Your task to perform on an android device: When is my next appointment? Image 0: 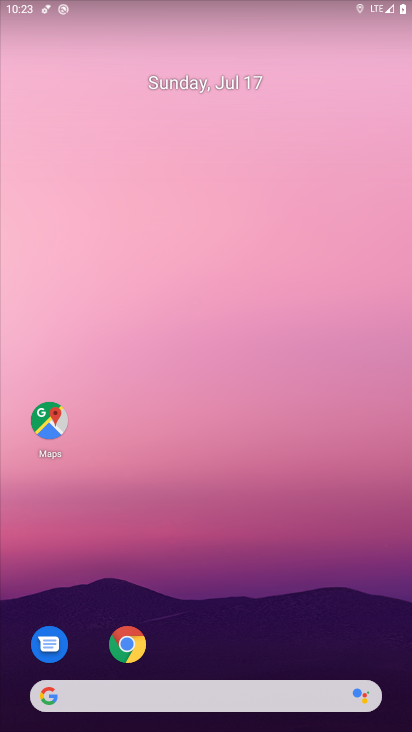
Step 0: press home button
Your task to perform on an android device: When is my next appointment? Image 1: 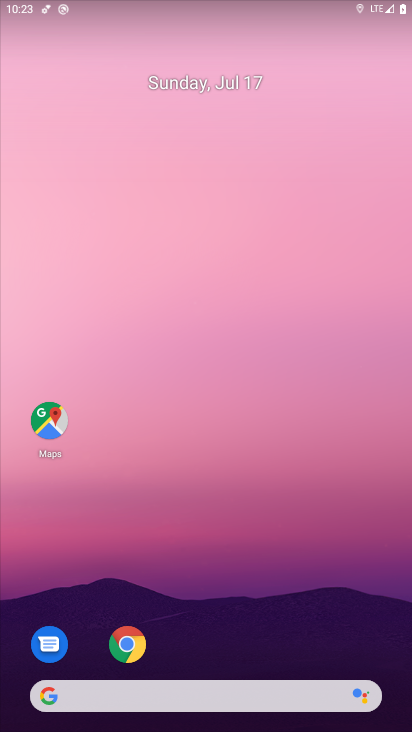
Step 1: drag from (276, 612) to (290, 15)
Your task to perform on an android device: When is my next appointment? Image 2: 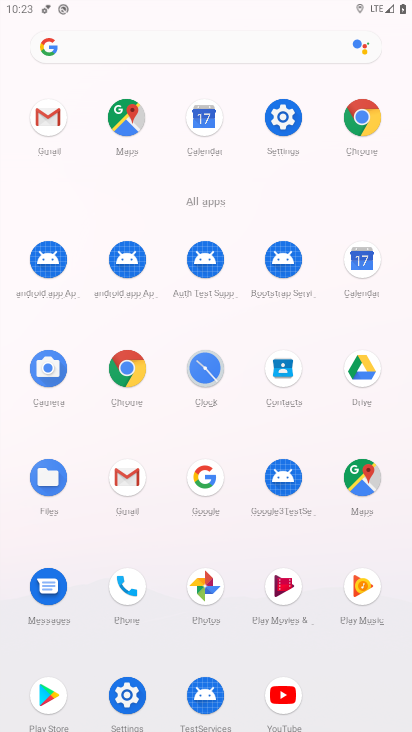
Step 2: click (358, 270)
Your task to perform on an android device: When is my next appointment? Image 3: 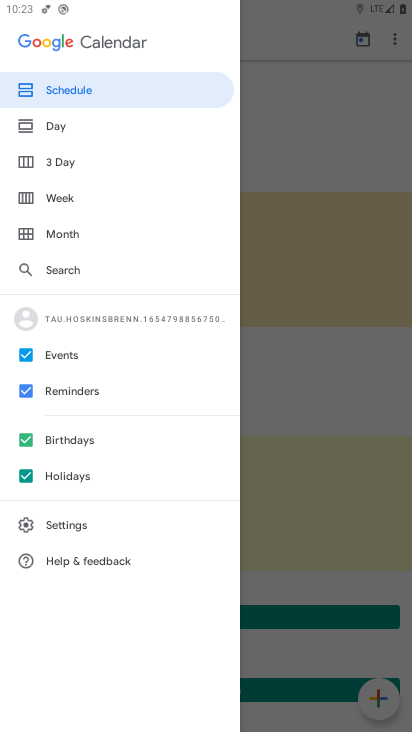
Step 3: click (86, 92)
Your task to perform on an android device: When is my next appointment? Image 4: 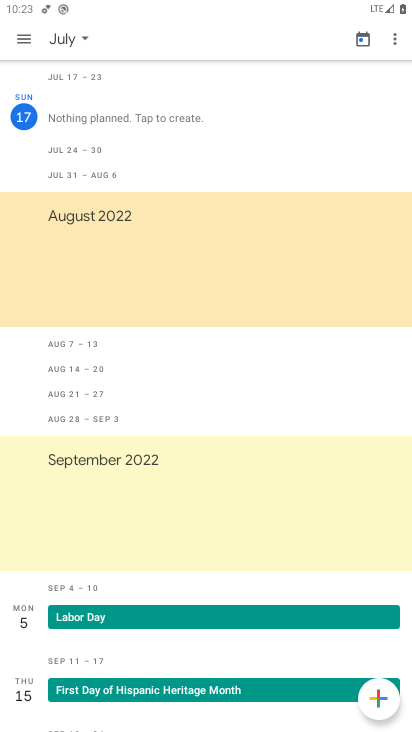
Step 4: task complete